Your task to perform on an android device: empty trash in the gmail app Image 0: 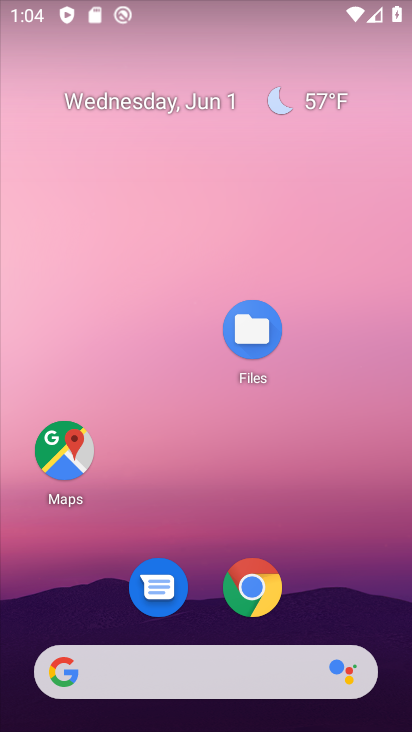
Step 0: press home button
Your task to perform on an android device: empty trash in the gmail app Image 1: 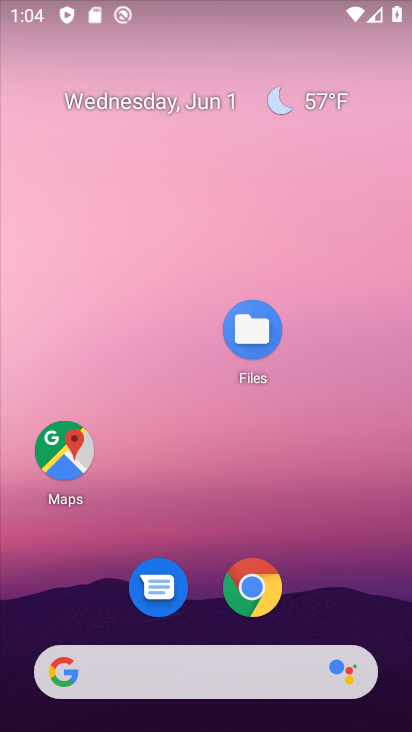
Step 1: drag from (394, 567) to (407, 135)
Your task to perform on an android device: empty trash in the gmail app Image 2: 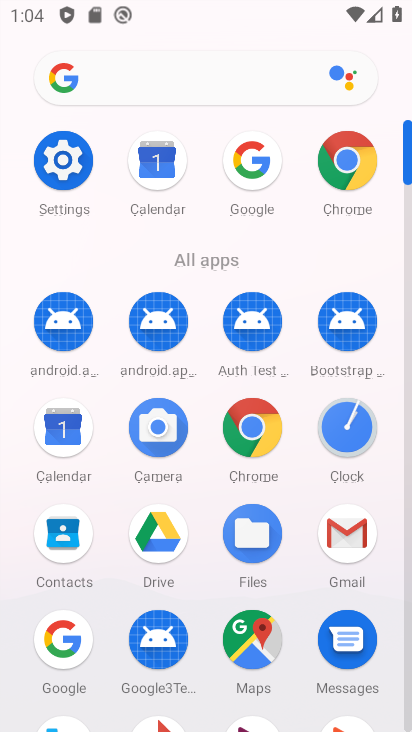
Step 2: click (357, 547)
Your task to perform on an android device: empty trash in the gmail app Image 3: 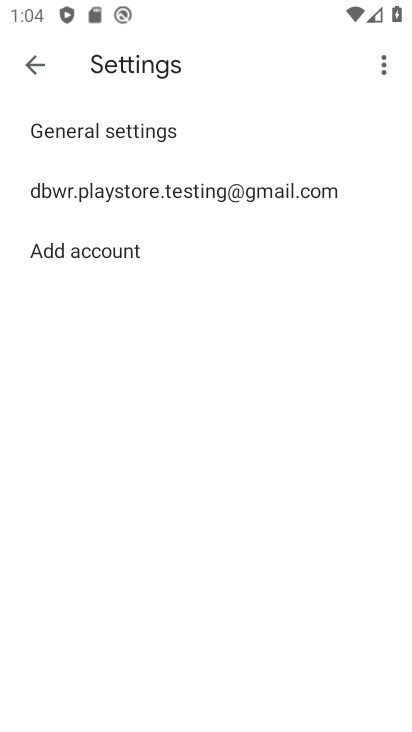
Step 3: click (35, 72)
Your task to perform on an android device: empty trash in the gmail app Image 4: 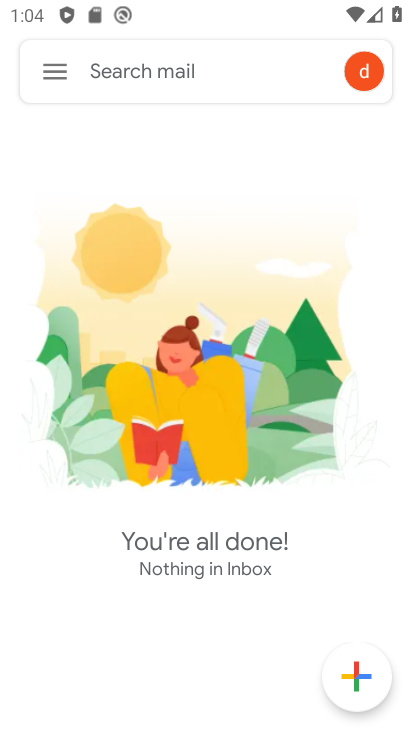
Step 4: click (32, 73)
Your task to perform on an android device: empty trash in the gmail app Image 5: 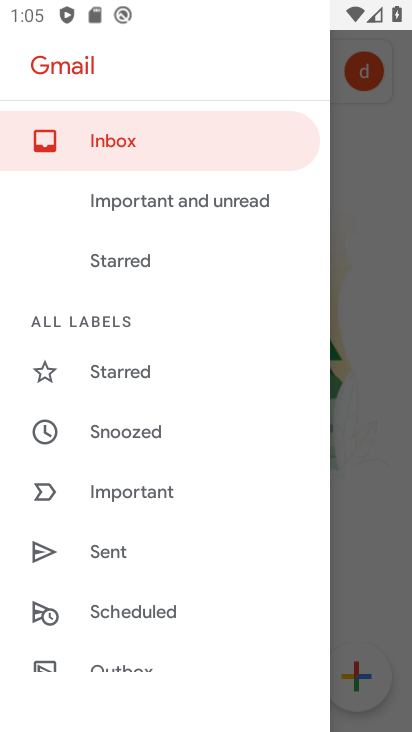
Step 5: drag from (91, 534) to (122, 297)
Your task to perform on an android device: empty trash in the gmail app Image 6: 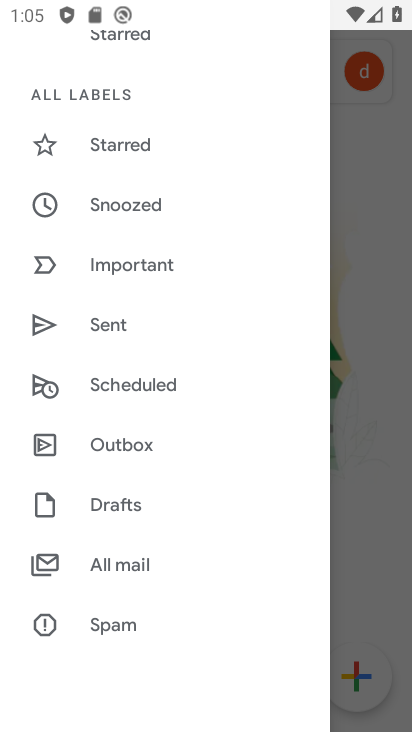
Step 6: drag from (173, 542) to (199, 131)
Your task to perform on an android device: empty trash in the gmail app Image 7: 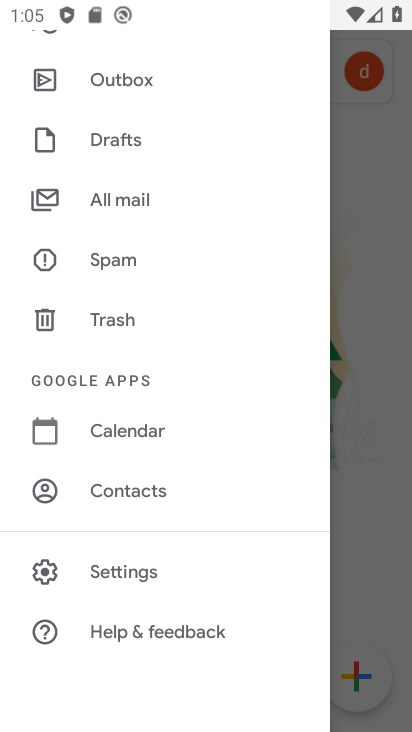
Step 7: click (93, 327)
Your task to perform on an android device: empty trash in the gmail app Image 8: 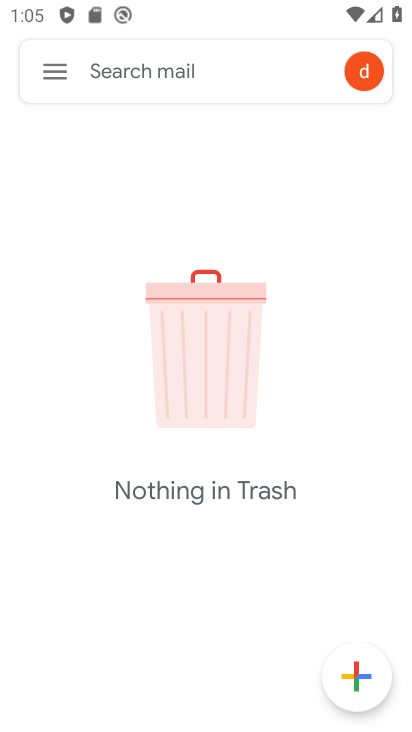
Step 8: task complete